Your task to perform on an android device: Open privacy settings Image 0: 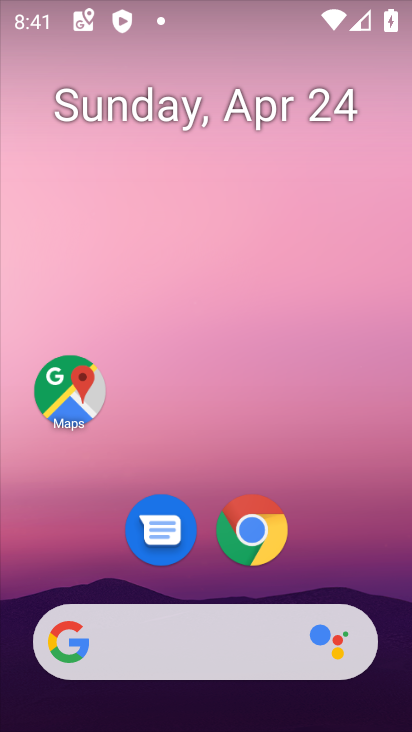
Step 0: drag from (219, 578) to (204, 174)
Your task to perform on an android device: Open privacy settings Image 1: 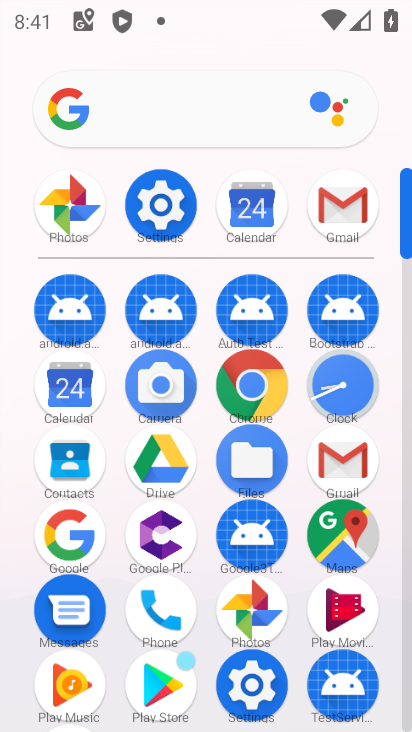
Step 1: click (164, 213)
Your task to perform on an android device: Open privacy settings Image 2: 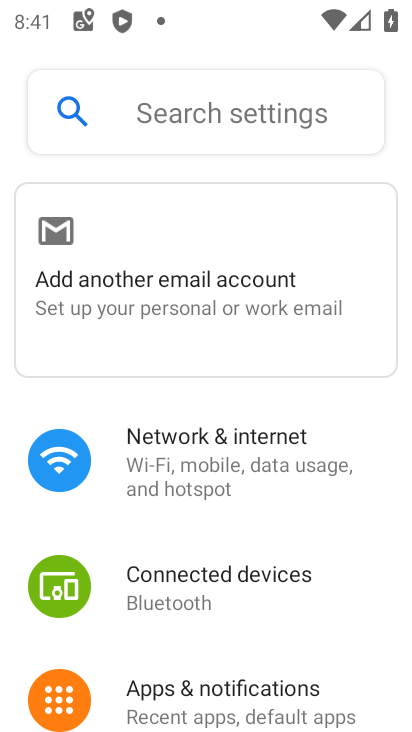
Step 2: drag from (230, 651) to (219, 191)
Your task to perform on an android device: Open privacy settings Image 3: 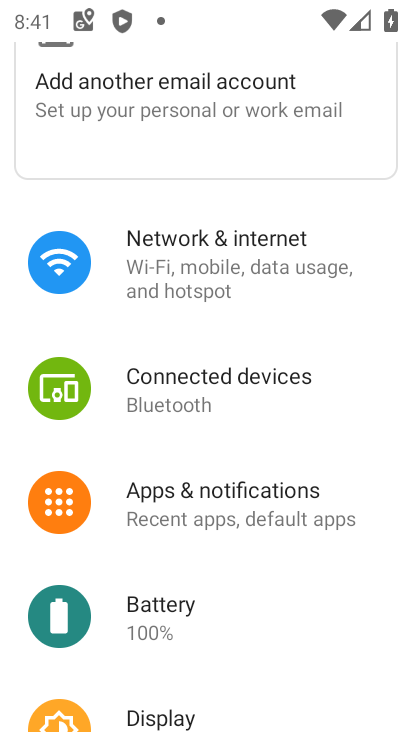
Step 3: drag from (249, 698) to (200, 150)
Your task to perform on an android device: Open privacy settings Image 4: 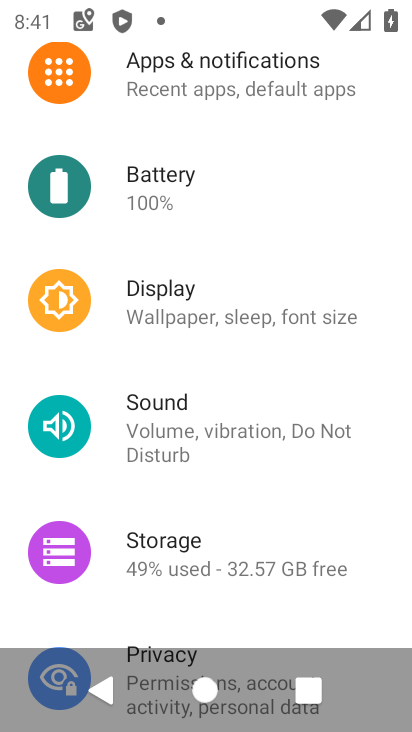
Step 4: drag from (99, 598) to (147, 113)
Your task to perform on an android device: Open privacy settings Image 5: 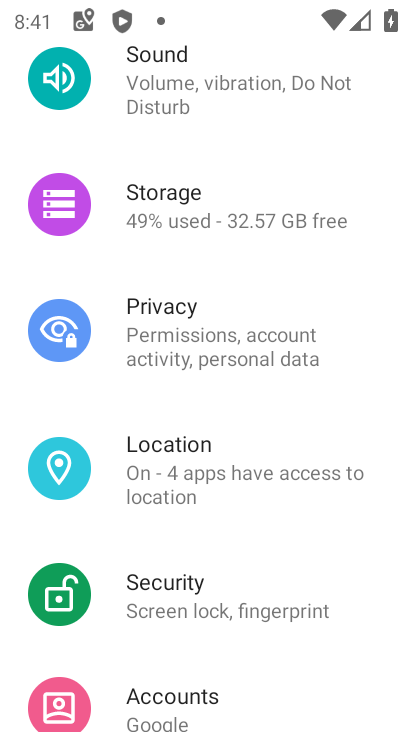
Step 5: click (185, 355)
Your task to perform on an android device: Open privacy settings Image 6: 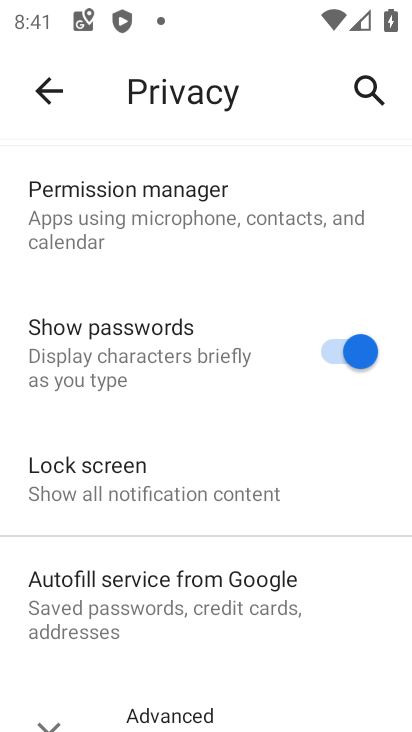
Step 6: task complete